Your task to perform on an android device: set an alarm Image 0: 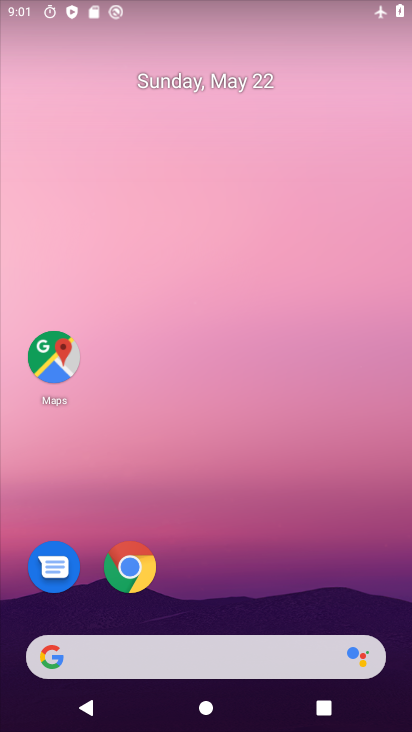
Step 0: drag from (201, 587) to (276, 37)
Your task to perform on an android device: set an alarm Image 1: 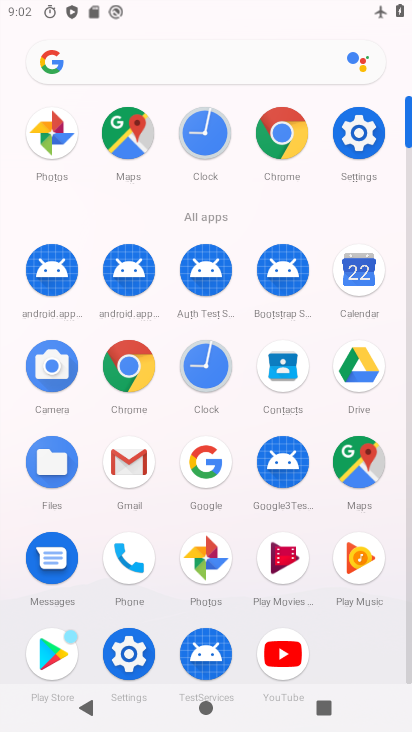
Step 1: click (215, 370)
Your task to perform on an android device: set an alarm Image 2: 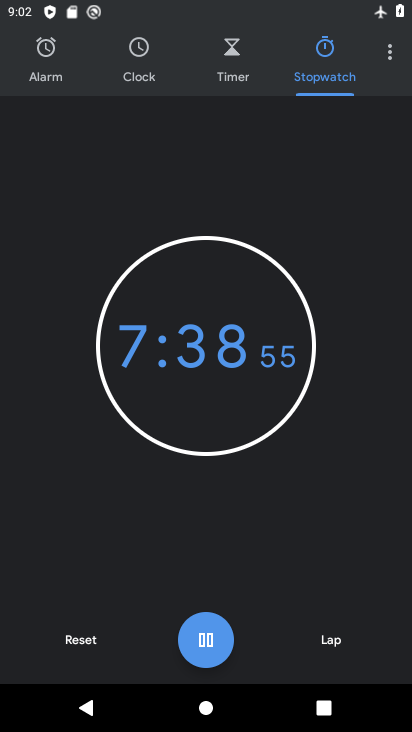
Step 2: click (78, 635)
Your task to perform on an android device: set an alarm Image 3: 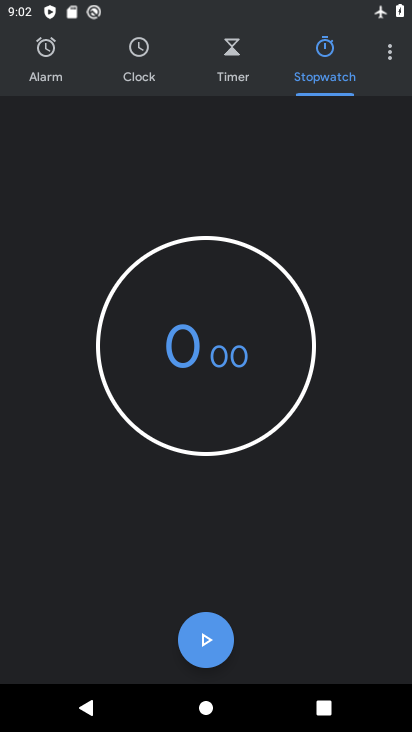
Step 3: click (39, 56)
Your task to perform on an android device: set an alarm Image 4: 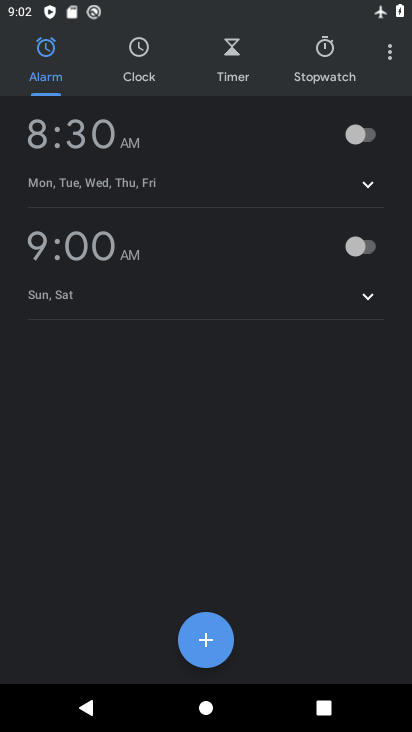
Step 4: click (103, 148)
Your task to perform on an android device: set an alarm Image 5: 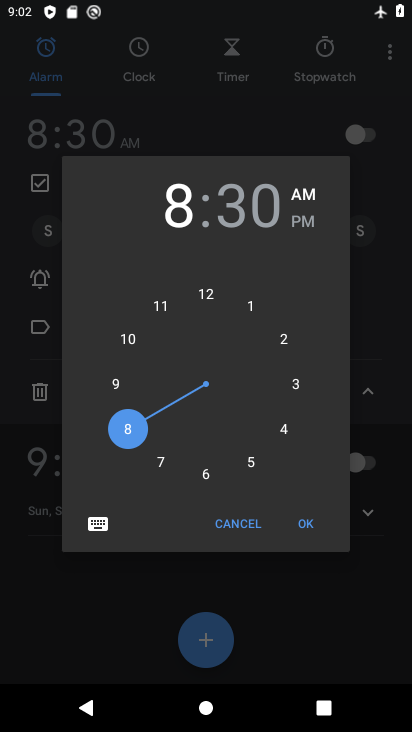
Step 5: click (144, 343)
Your task to perform on an android device: set an alarm Image 6: 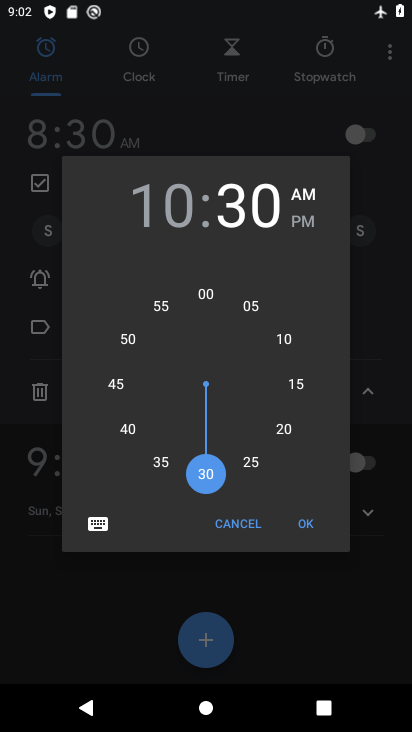
Step 6: click (281, 434)
Your task to perform on an android device: set an alarm Image 7: 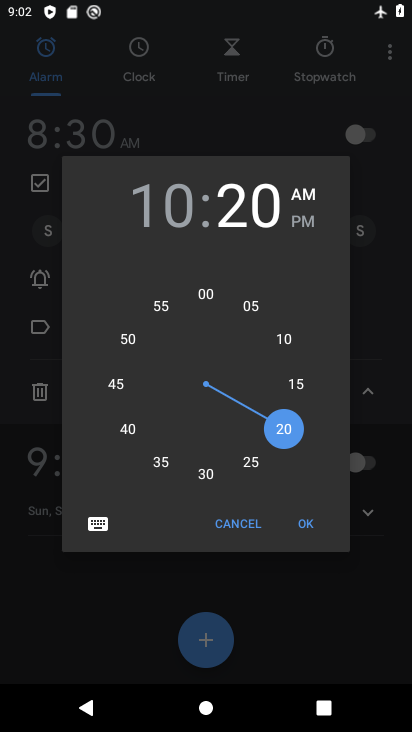
Step 7: click (305, 521)
Your task to perform on an android device: set an alarm Image 8: 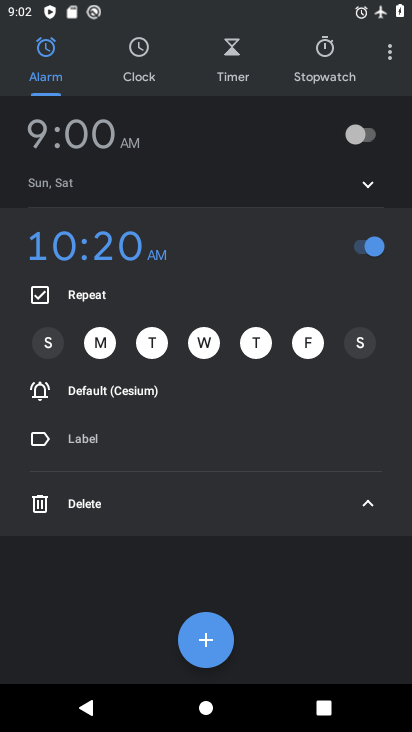
Step 8: click (263, 348)
Your task to perform on an android device: set an alarm Image 9: 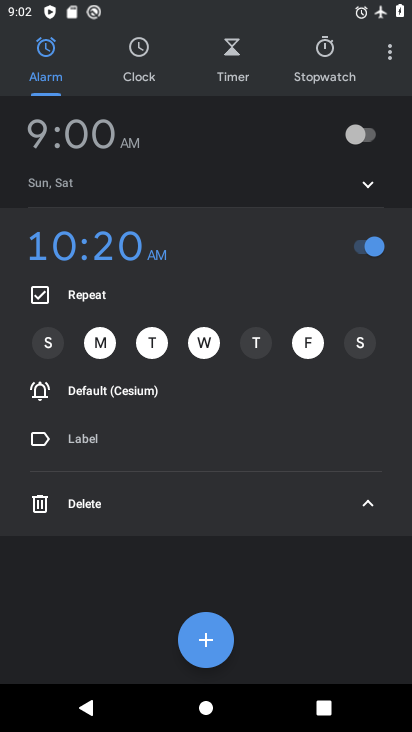
Step 9: click (308, 344)
Your task to perform on an android device: set an alarm Image 10: 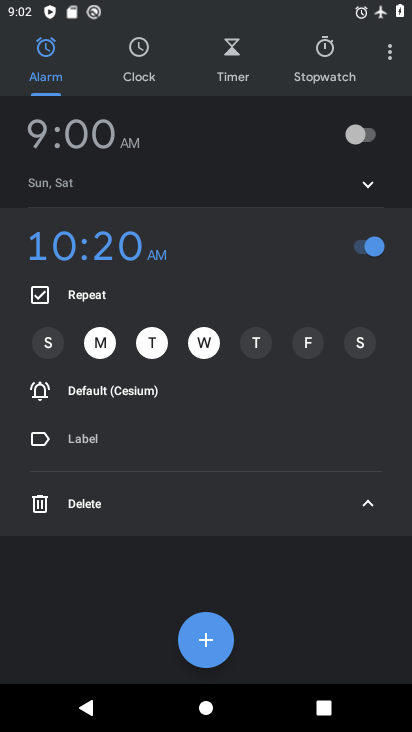
Step 10: click (43, 344)
Your task to perform on an android device: set an alarm Image 11: 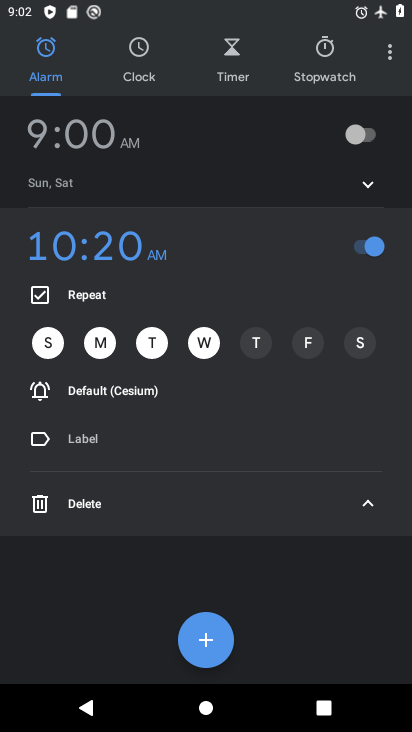
Step 11: click (369, 342)
Your task to perform on an android device: set an alarm Image 12: 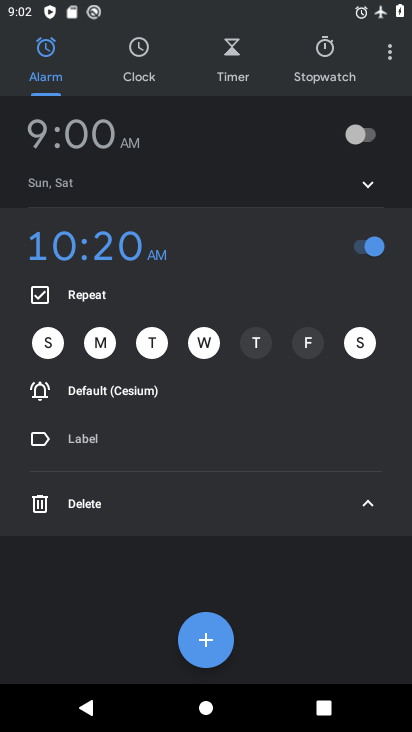
Step 12: click (196, 348)
Your task to perform on an android device: set an alarm Image 13: 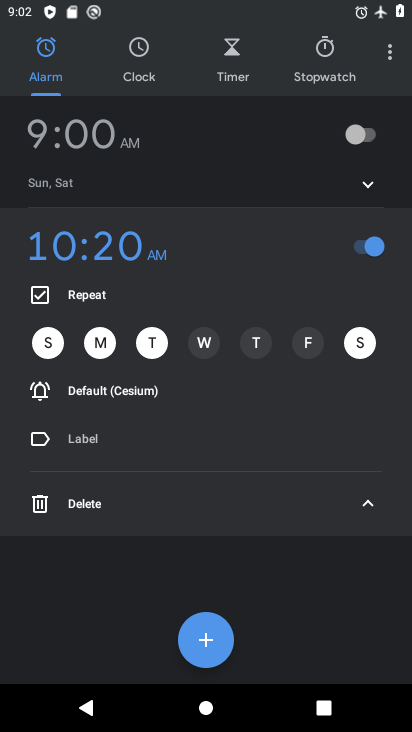
Step 13: click (368, 507)
Your task to perform on an android device: set an alarm Image 14: 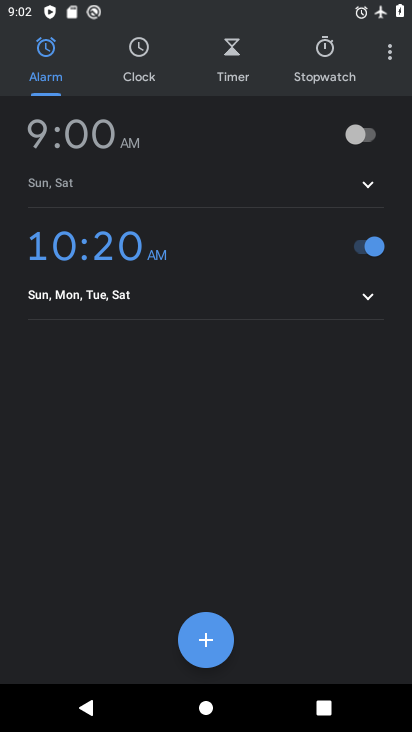
Step 14: task complete